Your task to perform on an android device: Set the phone to "Do not disturb". Image 0: 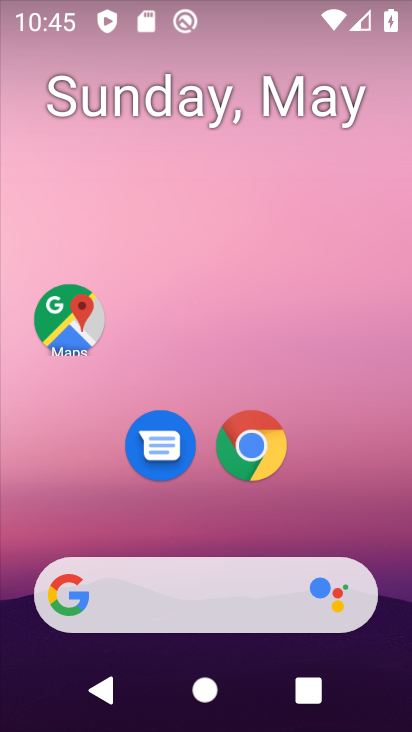
Step 0: drag from (174, 4) to (189, 511)
Your task to perform on an android device: Set the phone to "Do not disturb". Image 1: 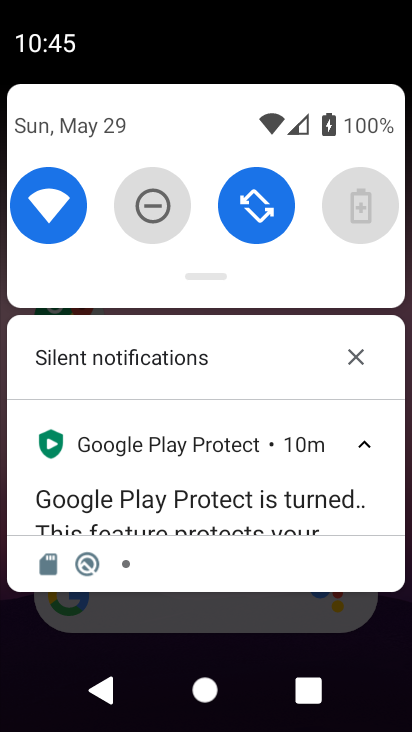
Step 1: click (150, 212)
Your task to perform on an android device: Set the phone to "Do not disturb". Image 2: 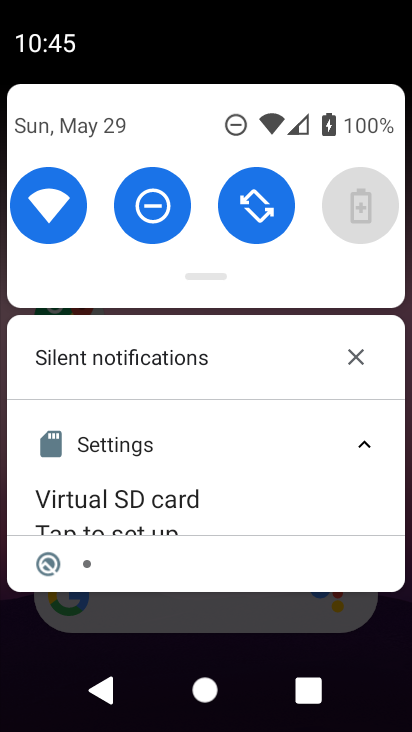
Step 2: task complete